Your task to perform on an android device: Go to internet settings Image 0: 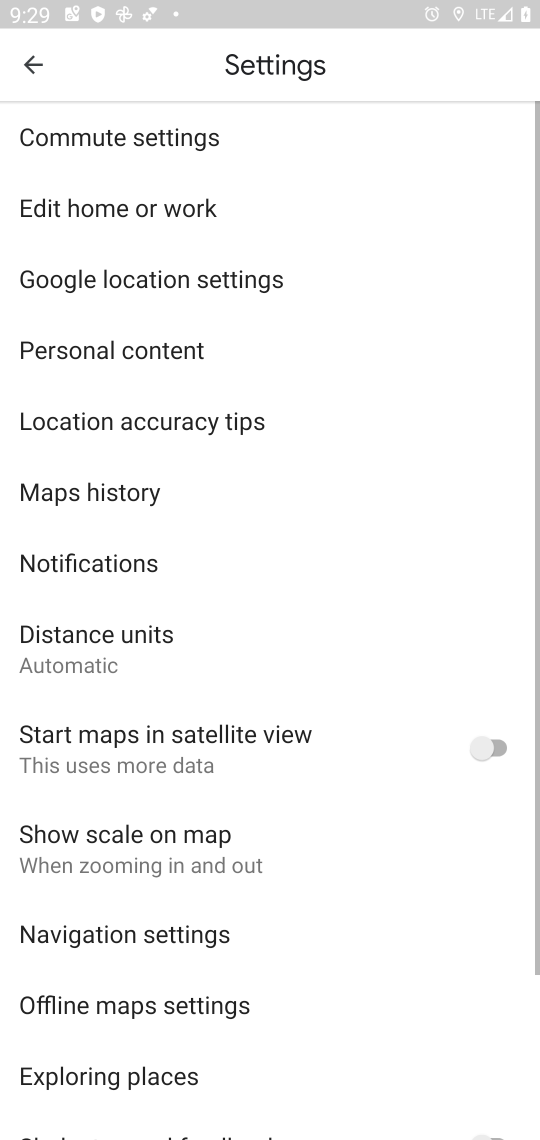
Step 0: press home button
Your task to perform on an android device: Go to internet settings Image 1: 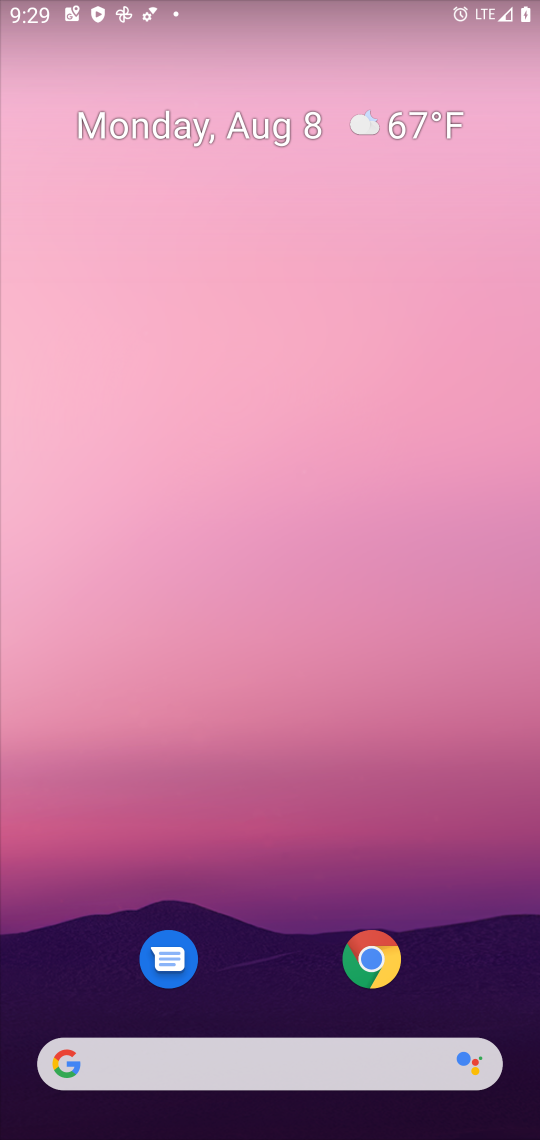
Step 1: drag from (477, 894) to (350, 4)
Your task to perform on an android device: Go to internet settings Image 2: 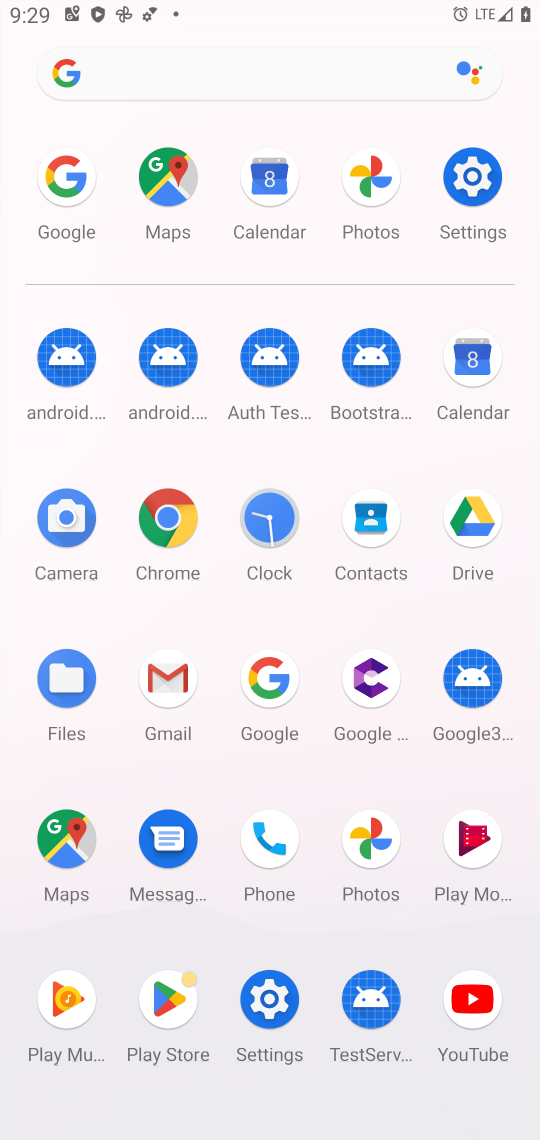
Step 2: click (447, 205)
Your task to perform on an android device: Go to internet settings Image 3: 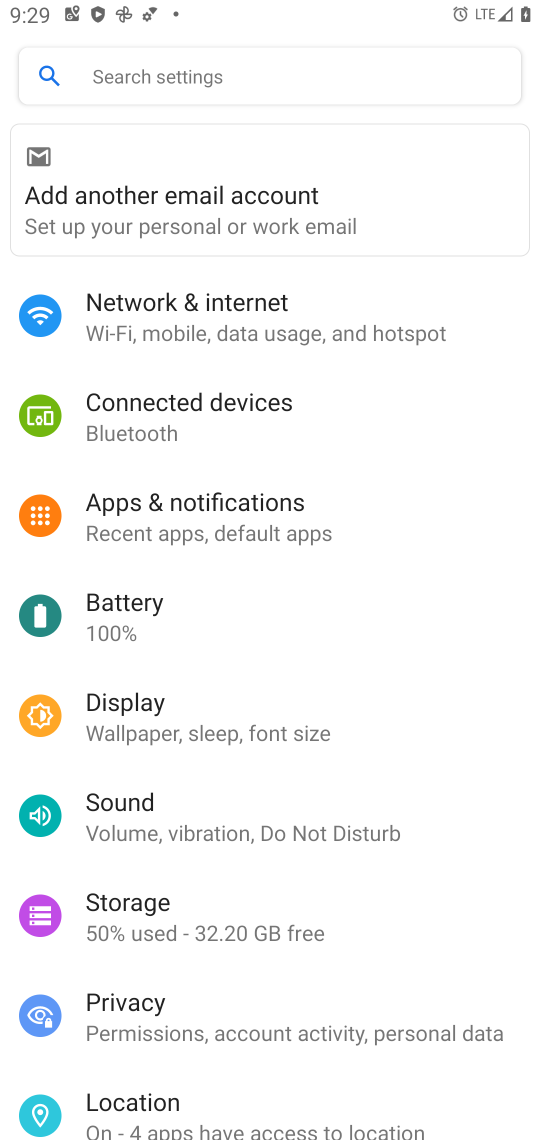
Step 3: click (181, 321)
Your task to perform on an android device: Go to internet settings Image 4: 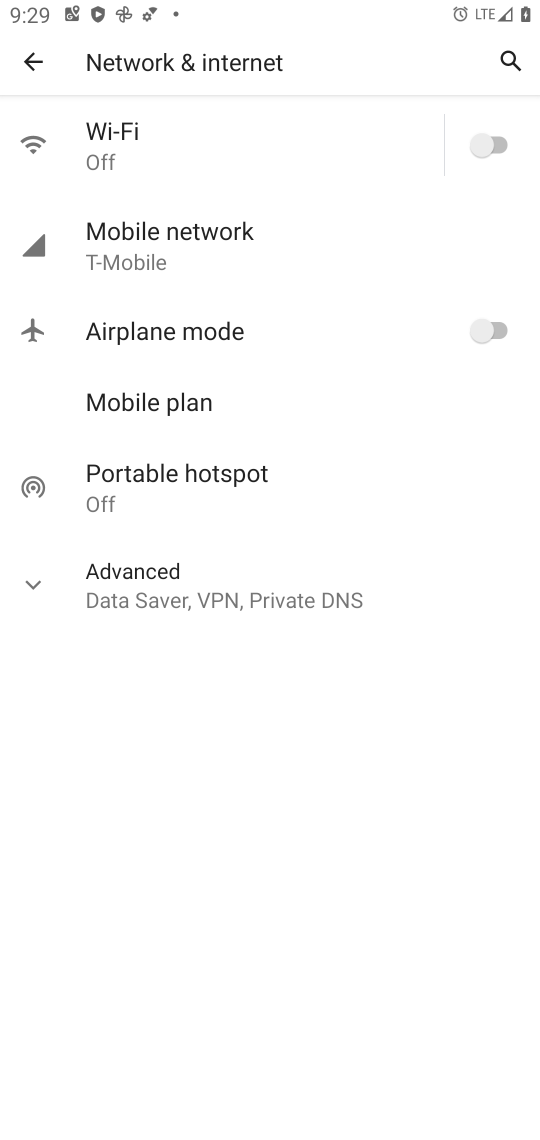
Step 4: task complete